Your task to perform on an android device: clear history in the chrome app Image 0: 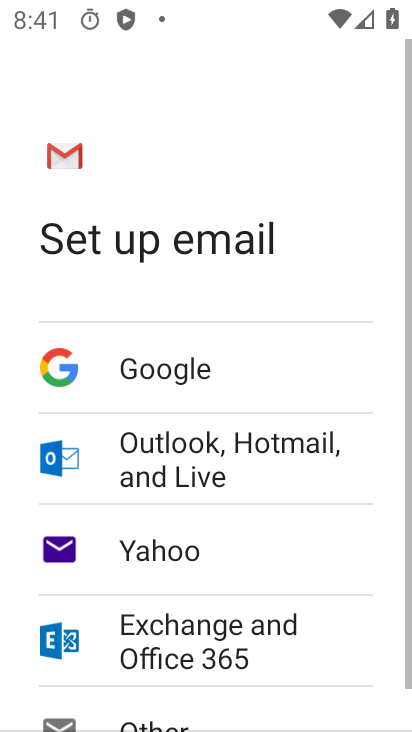
Step 0: press home button
Your task to perform on an android device: clear history in the chrome app Image 1: 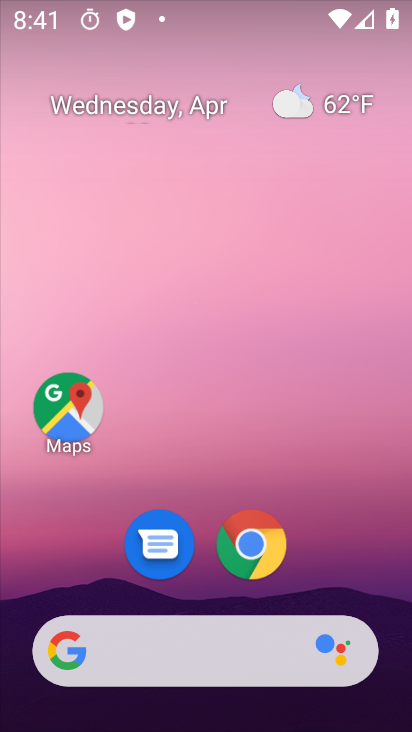
Step 1: click (261, 551)
Your task to perform on an android device: clear history in the chrome app Image 2: 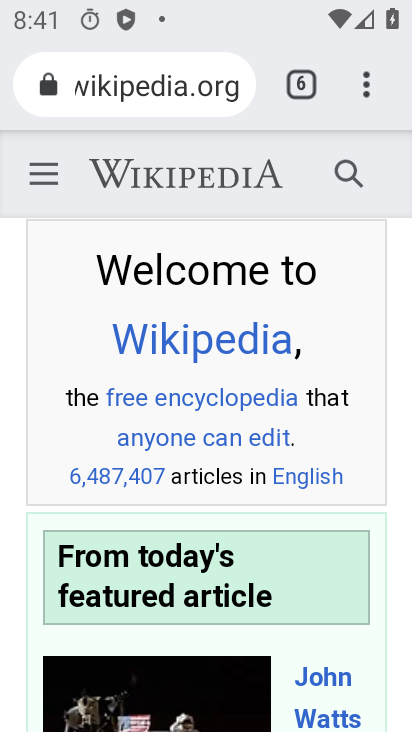
Step 2: drag from (369, 91) to (101, 593)
Your task to perform on an android device: clear history in the chrome app Image 3: 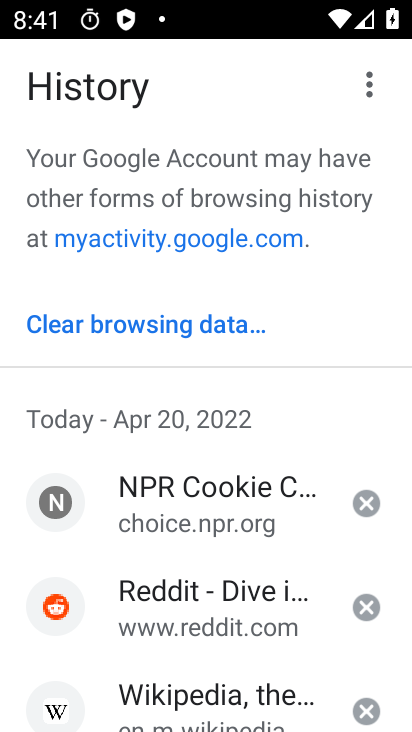
Step 3: click (133, 327)
Your task to perform on an android device: clear history in the chrome app Image 4: 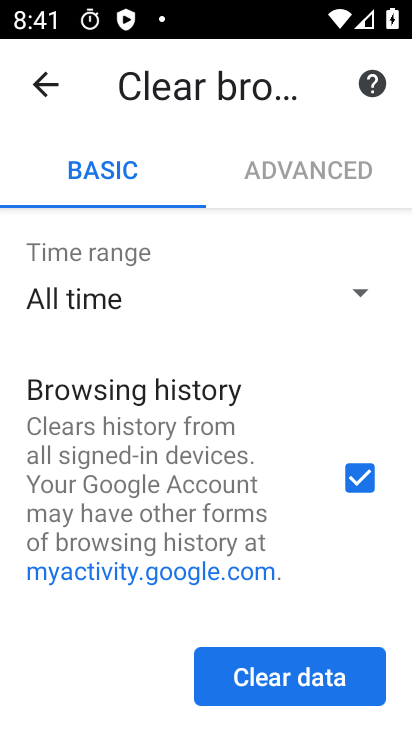
Step 4: click (313, 677)
Your task to perform on an android device: clear history in the chrome app Image 5: 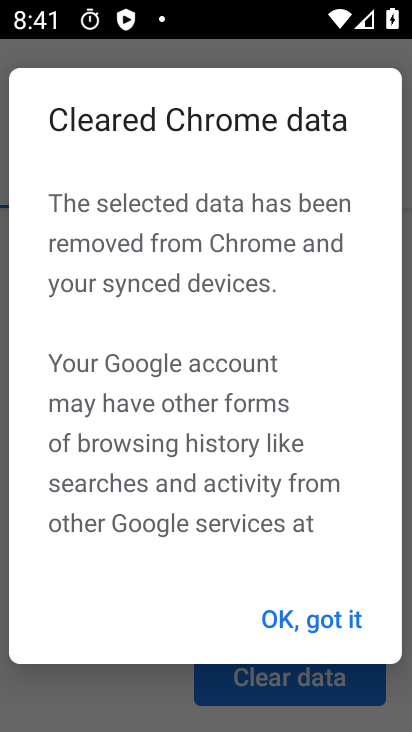
Step 5: click (317, 615)
Your task to perform on an android device: clear history in the chrome app Image 6: 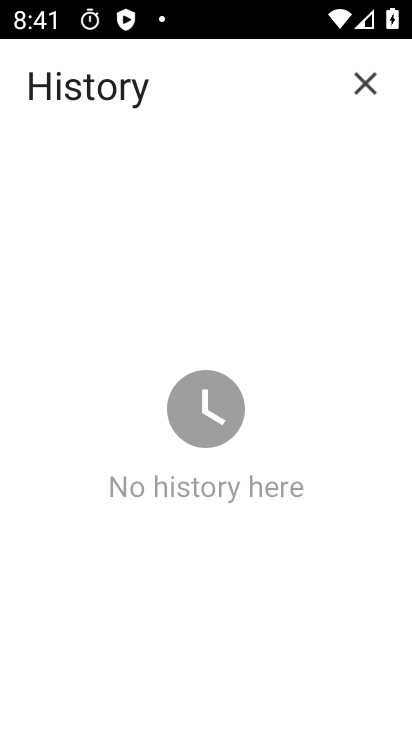
Step 6: task complete